Your task to perform on an android device: Open the calendar app, open the side menu, and click the "Day" option Image 0: 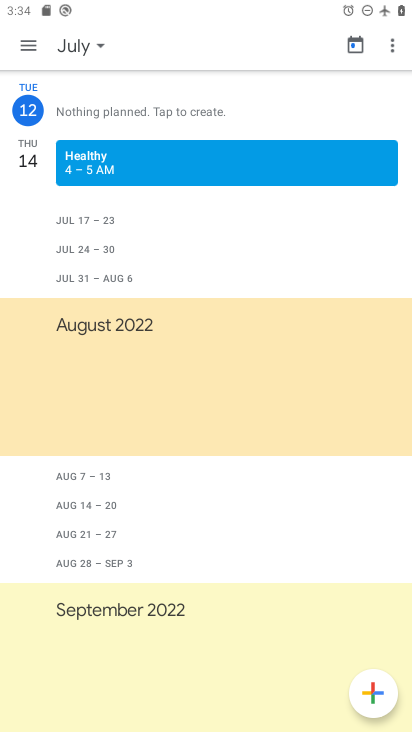
Step 0: click (38, 43)
Your task to perform on an android device: Open the calendar app, open the side menu, and click the "Day" option Image 1: 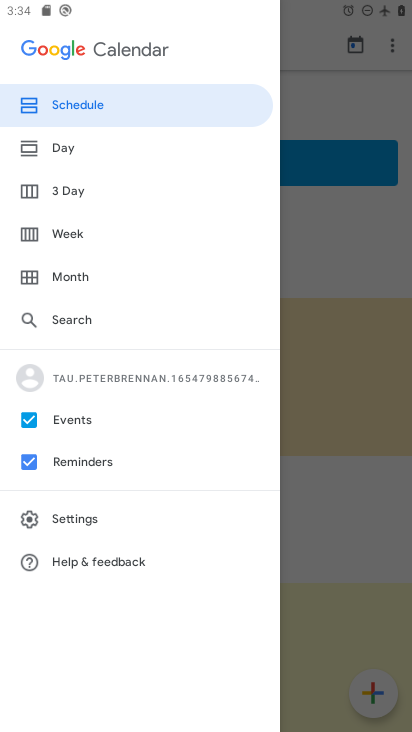
Step 1: click (77, 147)
Your task to perform on an android device: Open the calendar app, open the side menu, and click the "Day" option Image 2: 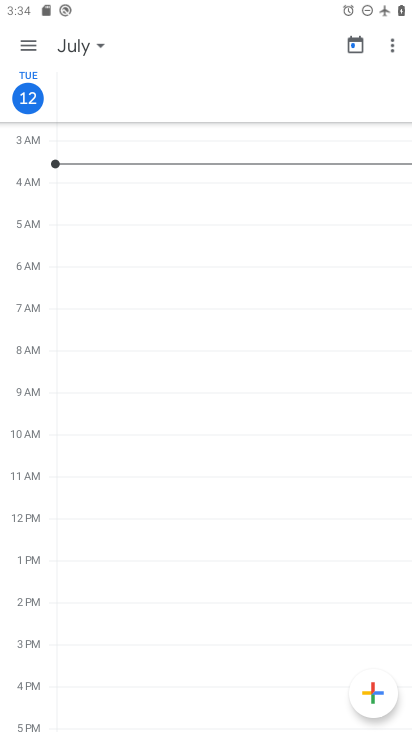
Step 2: click (25, 50)
Your task to perform on an android device: Open the calendar app, open the side menu, and click the "Day" option Image 3: 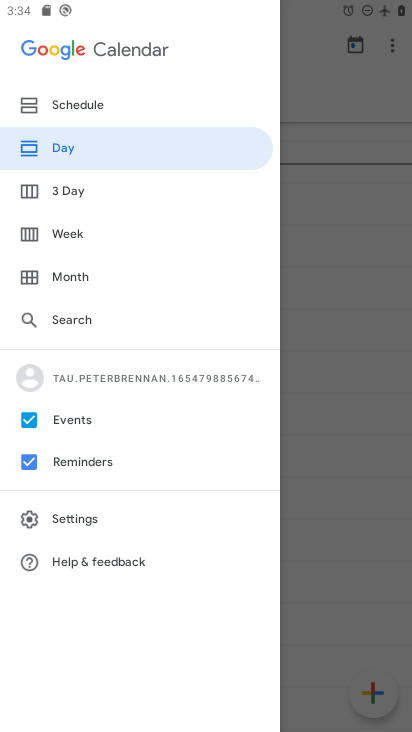
Step 3: click (294, 195)
Your task to perform on an android device: Open the calendar app, open the side menu, and click the "Day" option Image 4: 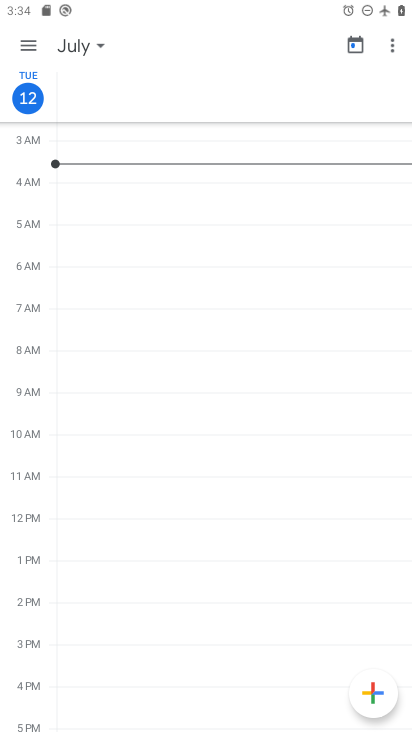
Step 4: task complete